Your task to perform on an android device: Search for sushi restaurants on Maps Image 0: 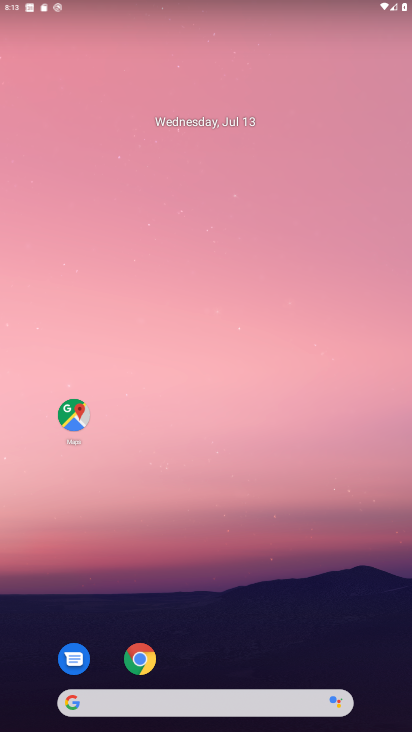
Step 0: click (74, 415)
Your task to perform on an android device: Search for sushi restaurants on Maps Image 1: 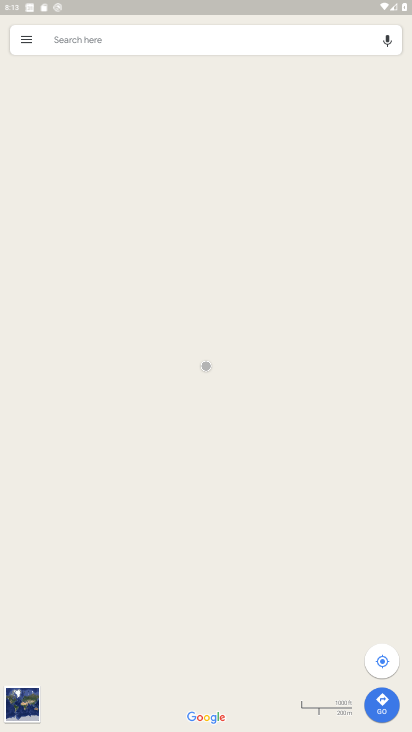
Step 1: click (122, 37)
Your task to perform on an android device: Search for sushi restaurants on Maps Image 2: 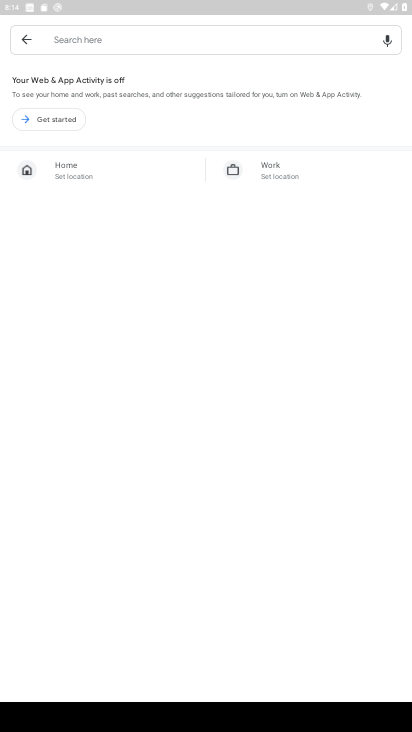
Step 2: type "sushi restaurants"
Your task to perform on an android device: Search for sushi restaurants on Maps Image 3: 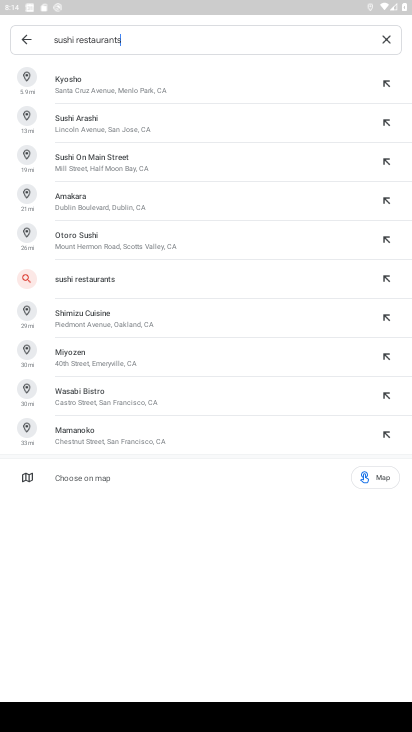
Step 3: click (115, 276)
Your task to perform on an android device: Search for sushi restaurants on Maps Image 4: 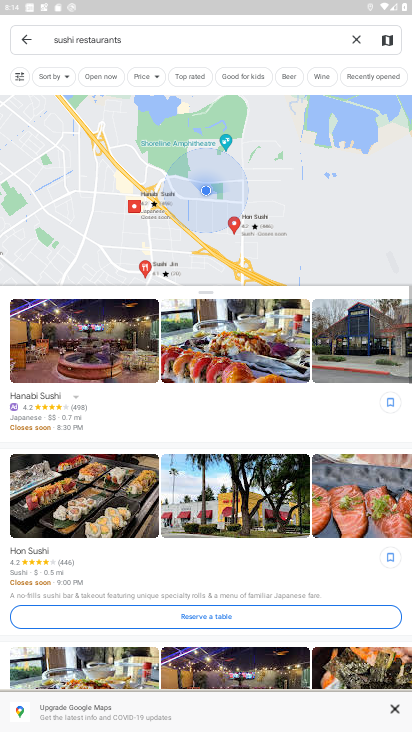
Step 4: task complete